Your task to perform on an android device: star an email in the gmail app Image 0: 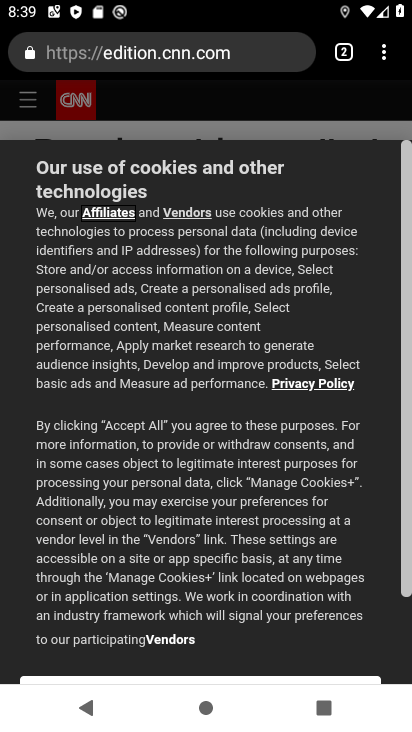
Step 0: press home button
Your task to perform on an android device: star an email in the gmail app Image 1: 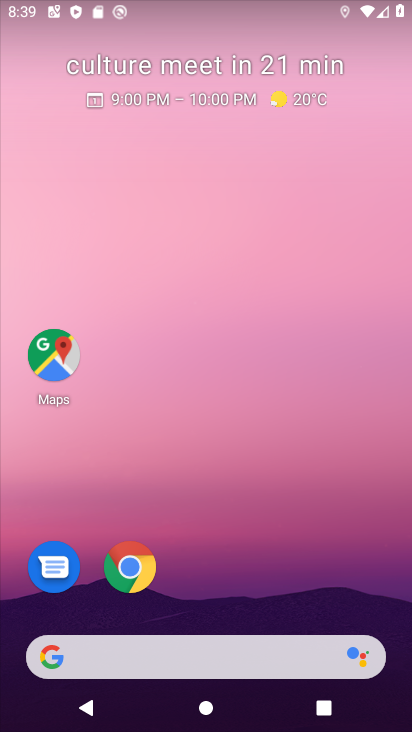
Step 1: drag from (205, 623) to (210, 17)
Your task to perform on an android device: star an email in the gmail app Image 2: 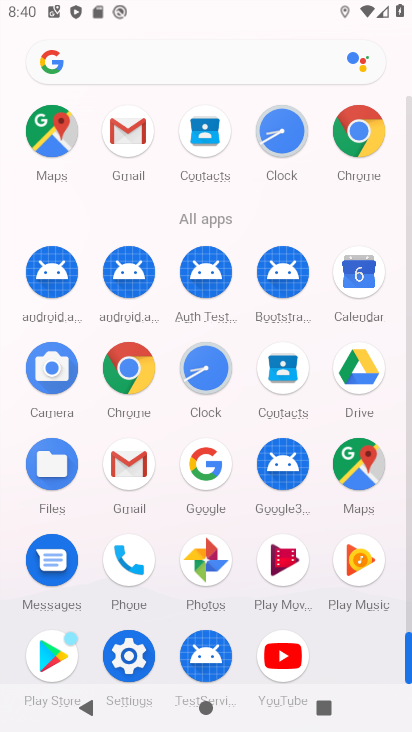
Step 2: click (120, 141)
Your task to perform on an android device: star an email in the gmail app Image 3: 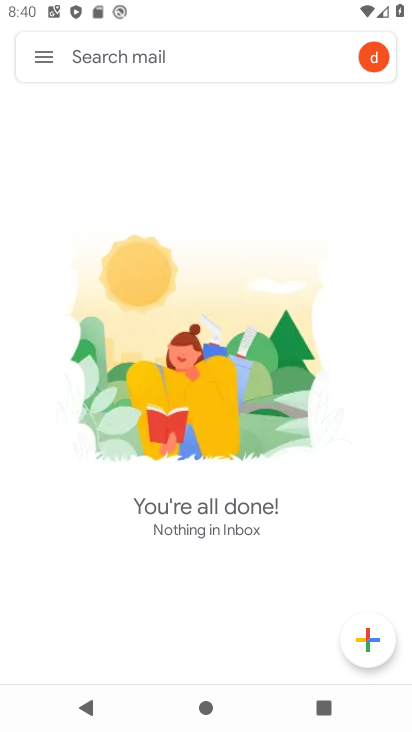
Step 3: task complete